Your task to perform on an android device: delete browsing data in the chrome app Image 0: 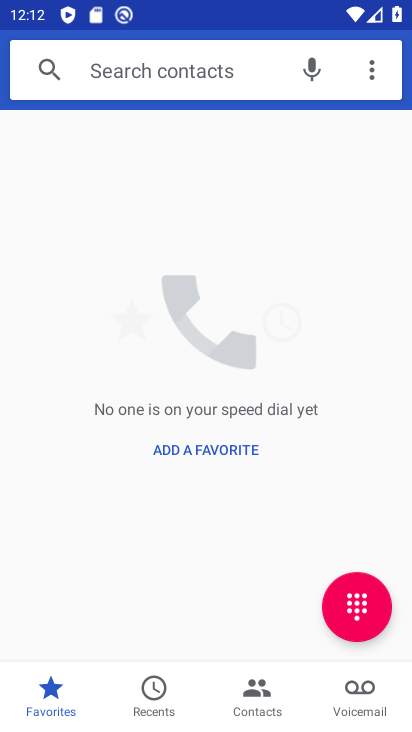
Step 0: press home button
Your task to perform on an android device: delete browsing data in the chrome app Image 1: 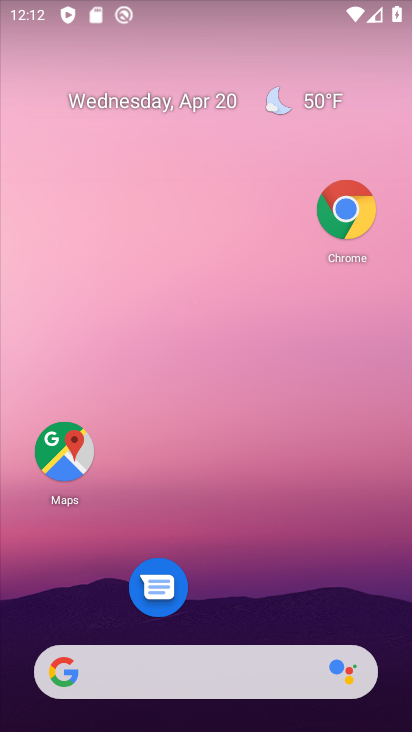
Step 1: drag from (217, 589) to (250, 129)
Your task to perform on an android device: delete browsing data in the chrome app Image 2: 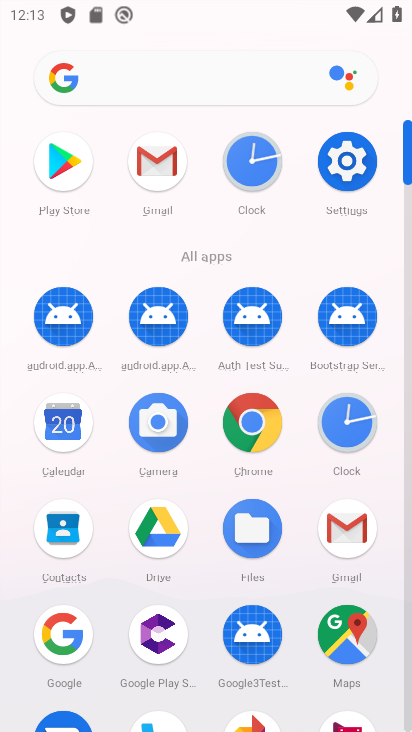
Step 2: click (256, 426)
Your task to perform on an android device: delete browsing data in the chrome app Image 3: 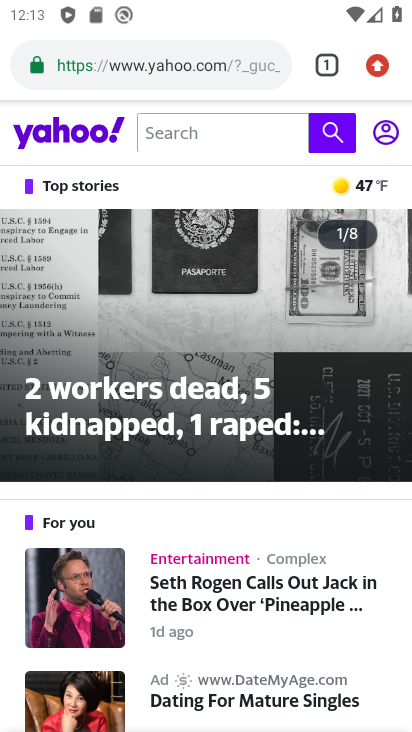
Step 3: click (379, 64)
Your task to perform on an android device: delete browsing data in the chrome app Image 4: 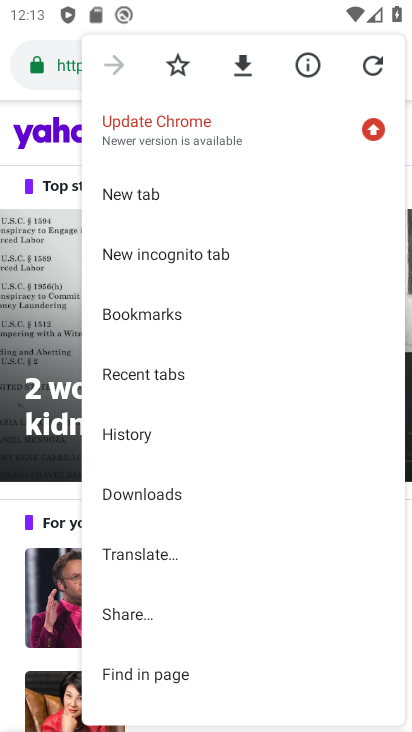
Step 4: click (143, 435)
Your task to perform on an android device: delete browsing data in the chrome app Image 5: 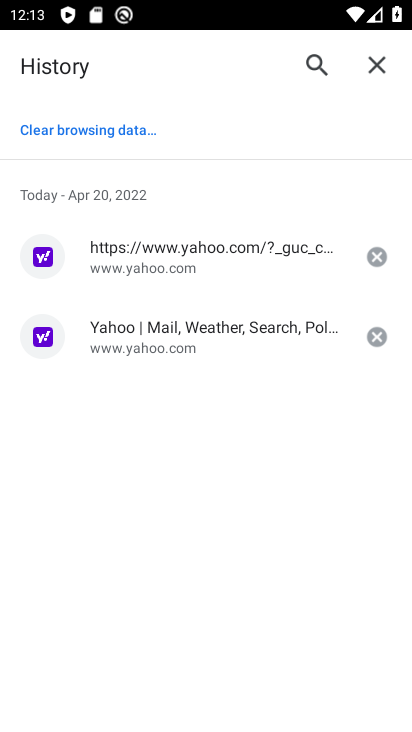
Step 5: click (65, 137)
Your task to perform on an android device: delete browsing data in the chrome app Image 6: 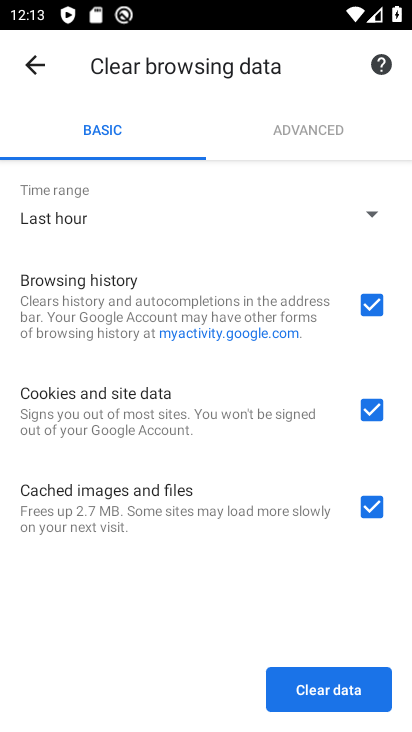
Step 6: click (311, 687)
Your task to perform on an android device: delete browsing data in the chrome app Image 7: 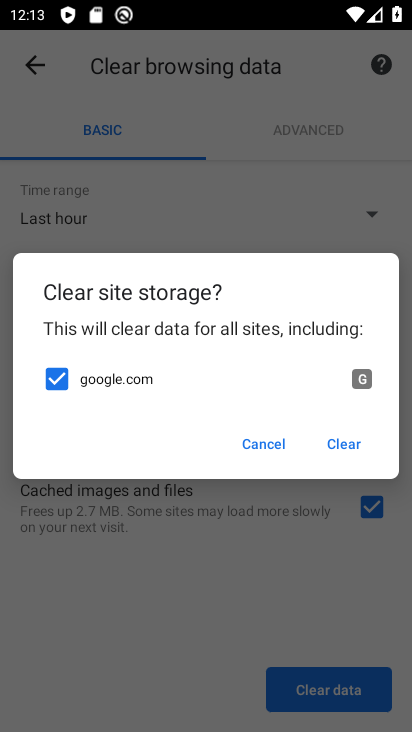
Step 7: click (341, 444)
Your task to perform on an android device: delete browsing data in the chrome app Image 8: 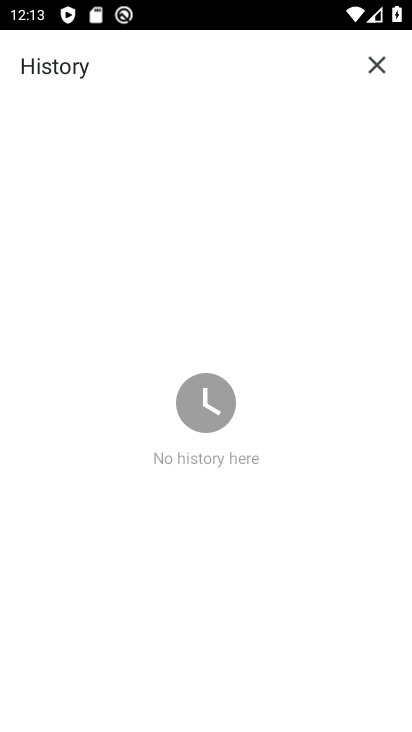
Step 8: task complete